Your task to perform on an android device: Open calendar and show me the second week of next month Image 0: 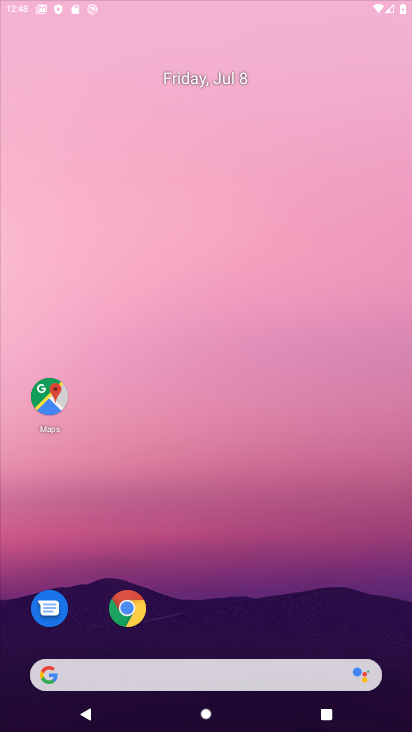
Step 0: click (321, 131)
Your task to perform on an android device: Open calendar and show me the second week of next month Image 1: 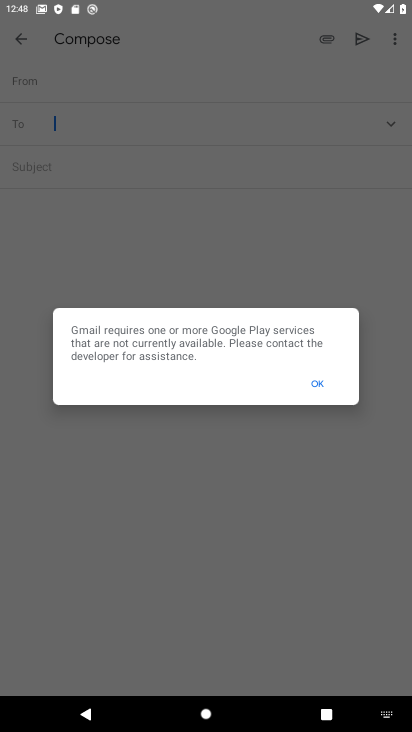
Step 1: press home button
Your task to perform on an android device: Open calendar and show me the second week of next month Image 2: 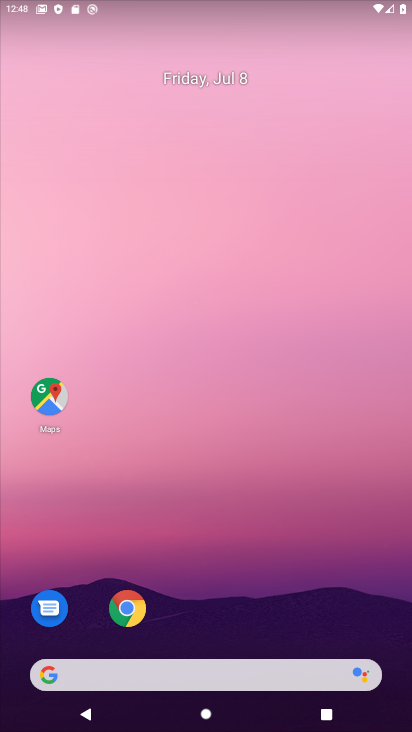
Step 2: drag from (378, 611) to (312, 80)
Your task to perform on an android device: Open calendar and show me the second week of next month Image 3: 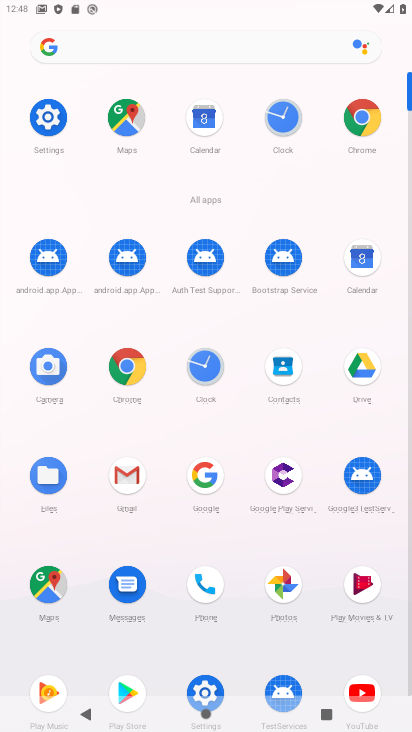
Step 3: click (362, 256)
Your task to perform on an android device: Open calendar and show me the second week of next month Image 4: 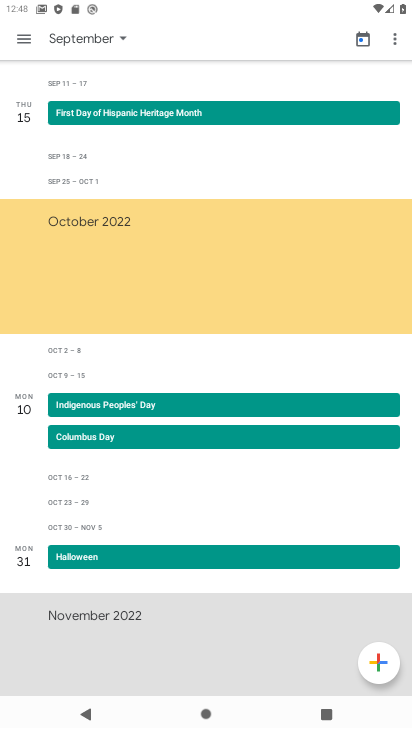
Step 4: click (21, 38)
Your task to perform on an android device: Open calendar and show me the second week of next month Image 5: 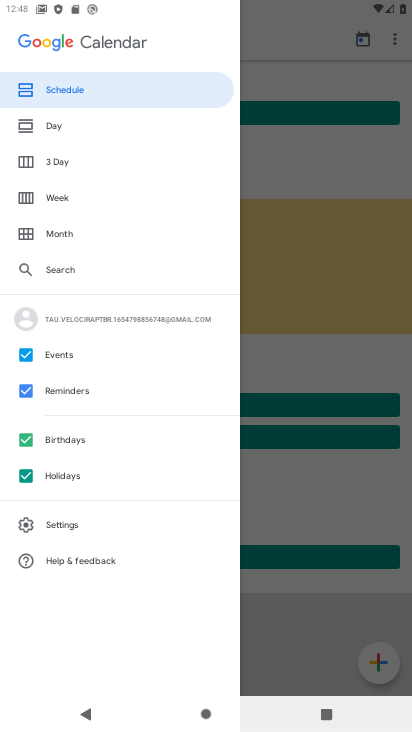
Step 5: click (53, 189)
Your task to perform on an android device: Open calendar and show me the second week of next month Image 6: 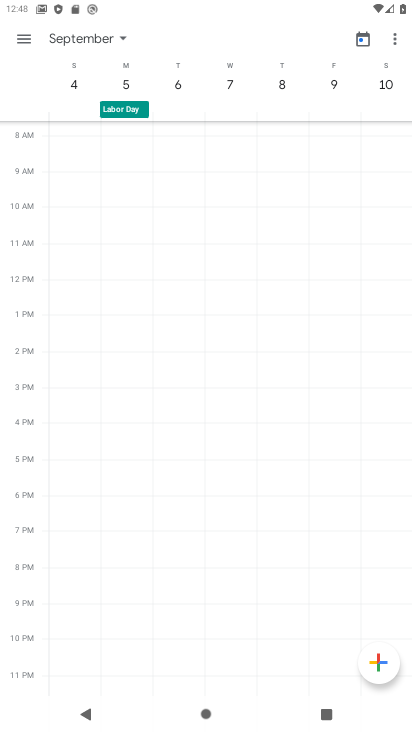
Step 6: click (118, 43)
Your task to perform on an android device: Open calendar and show me the second week of next month Image 7: 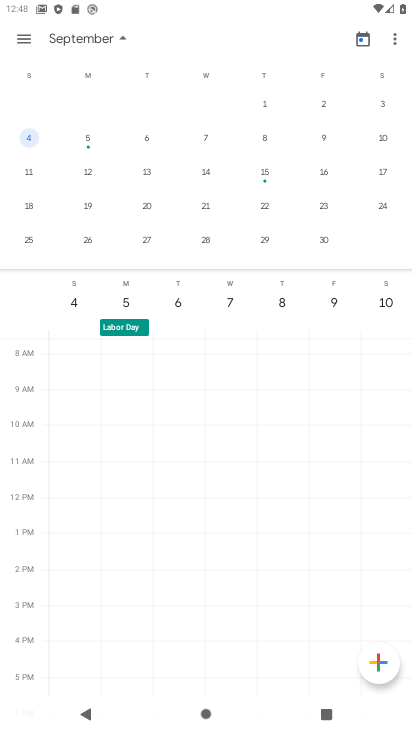
Step 7: drag from (21, 185) to (383, 214)
Your task to perform on an android device: Open calendar and show me the second week of next month Image 8: 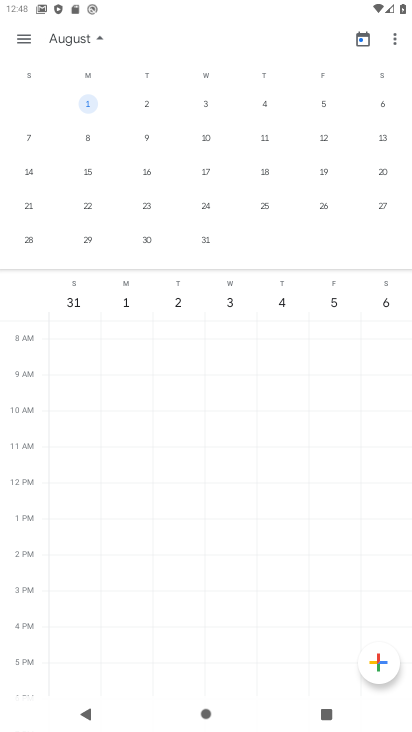
Step 8: drag from (23, 206) to (182, 207)
Your task to perform on an android device: Open calendar and show me the second week of next month Image 9: 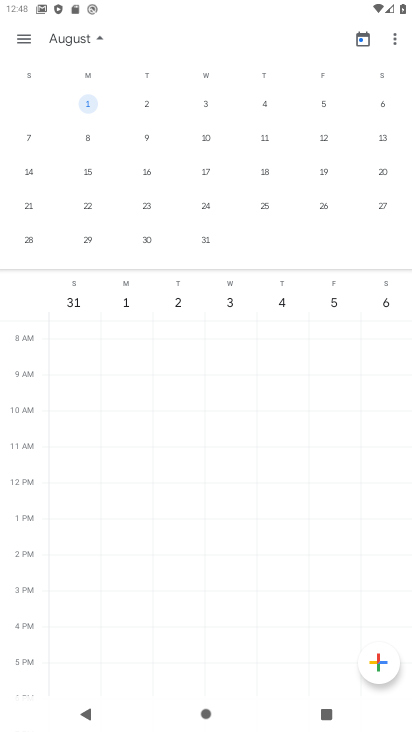
Step 9: click (23, 171)
Your task to perform on an android device: Open calendar and show me the second week of next month Image 10: 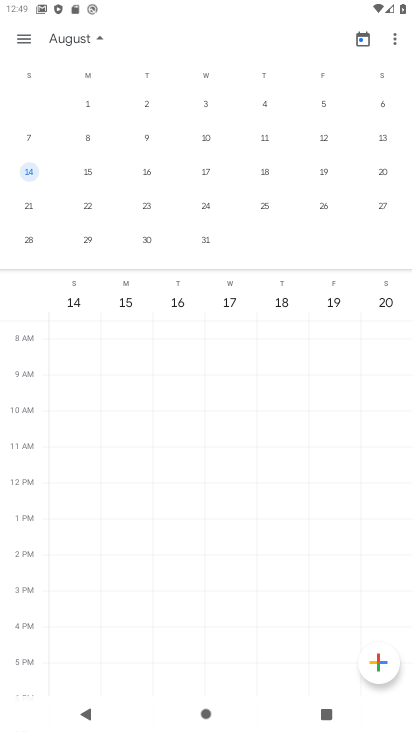
Step 10: task complete